Your task to perform on an android device: Go to Google maps Image 0: 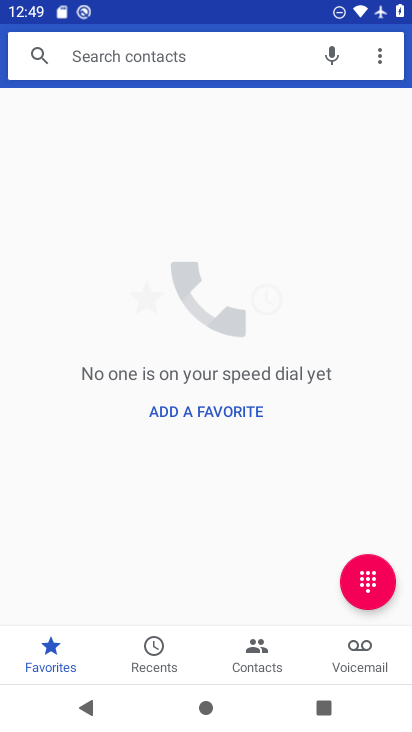
Step 0: press home button
Your task to perform on an android device: Go to Google maps Image 1: 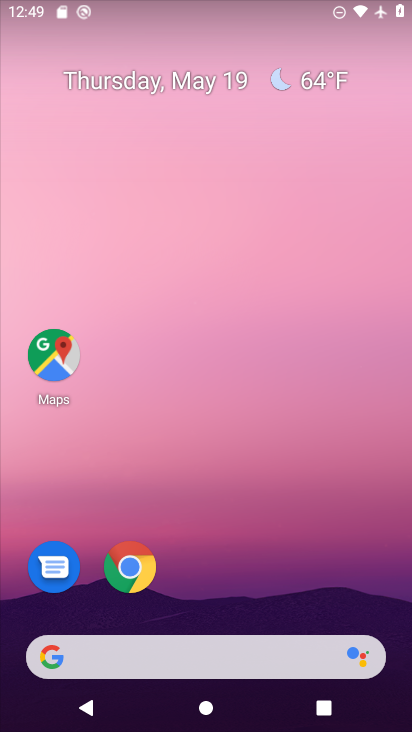
Step 1: click (57, 366)
Your task to perform on an android device: Go to Google maps Image 2: 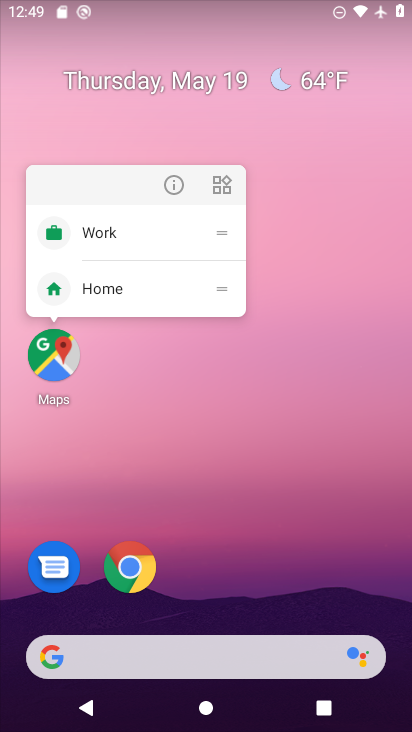
Step 2: click (57, 369)
Your task to perform on an android device: Go to Google maps Image 3: 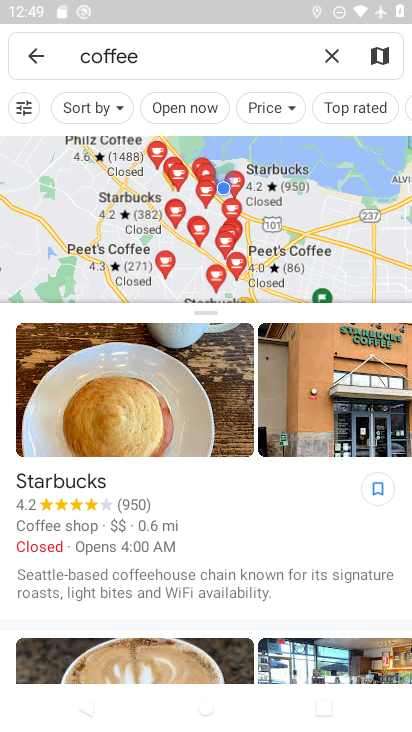
Step 3: click (331, 64)
Your task to perform on an android device: Go to Google maps Image 4: 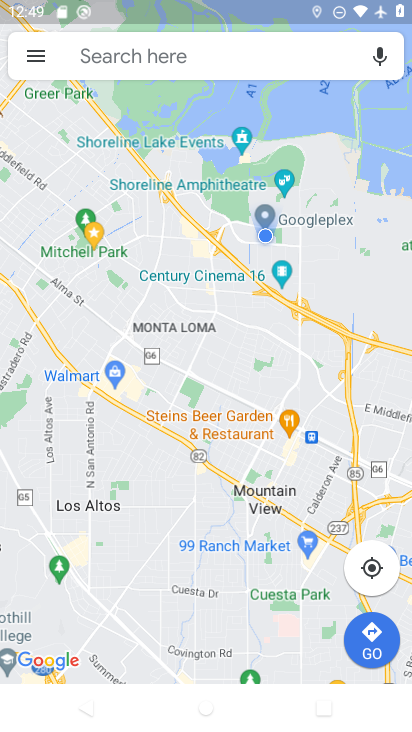
Step 4: task complete